Your task to perform on an android device: add a contact in the contacts app Image 0: 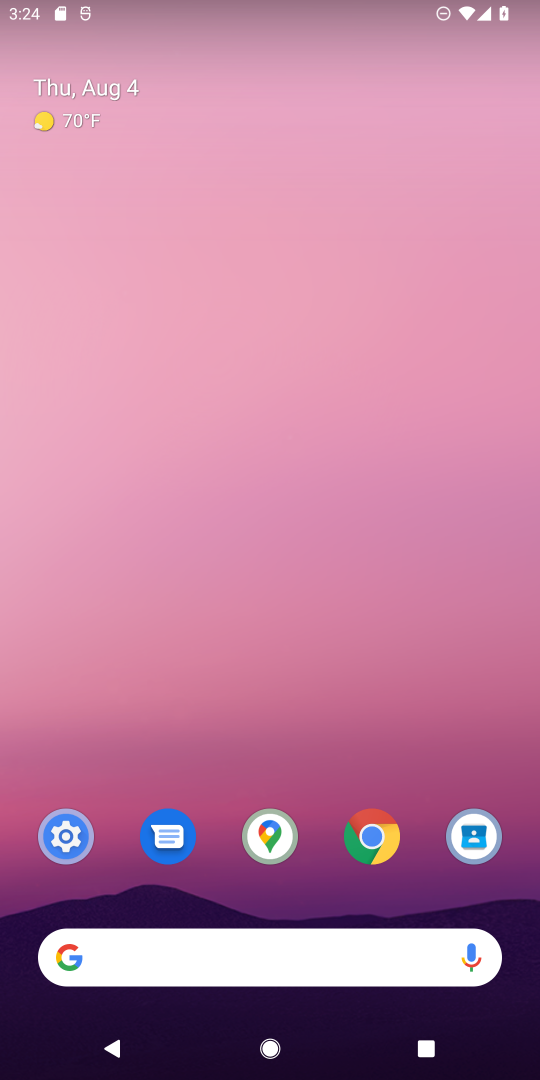
Step 0: drag from (145, 961) to (25, 255)
Your task to perform on an android device: add a contact in the contacts app Image 1: 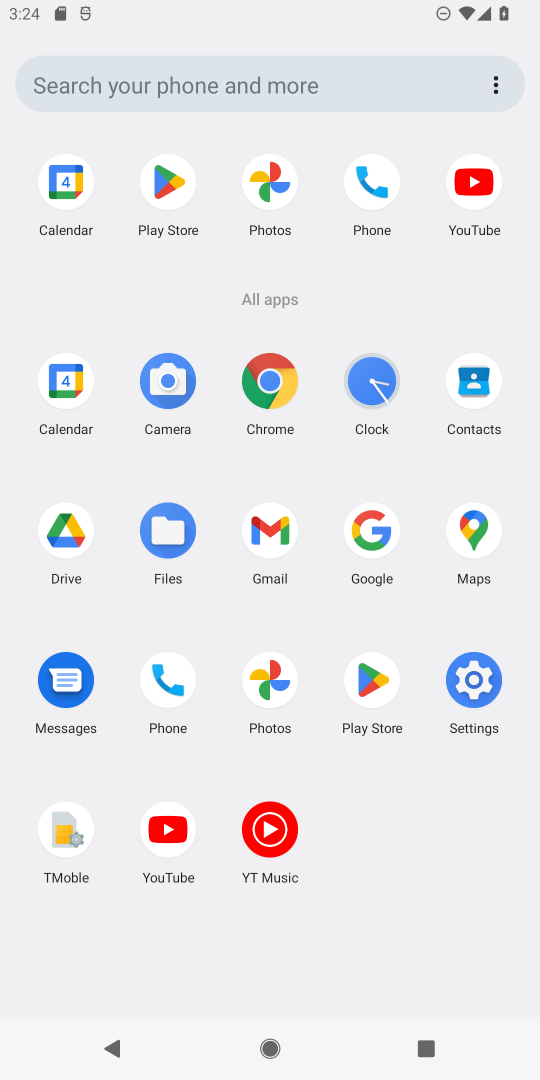
Step 1: click (467, 405)
Your task to perform on an android device: add a contact in the contacts app Image 2: 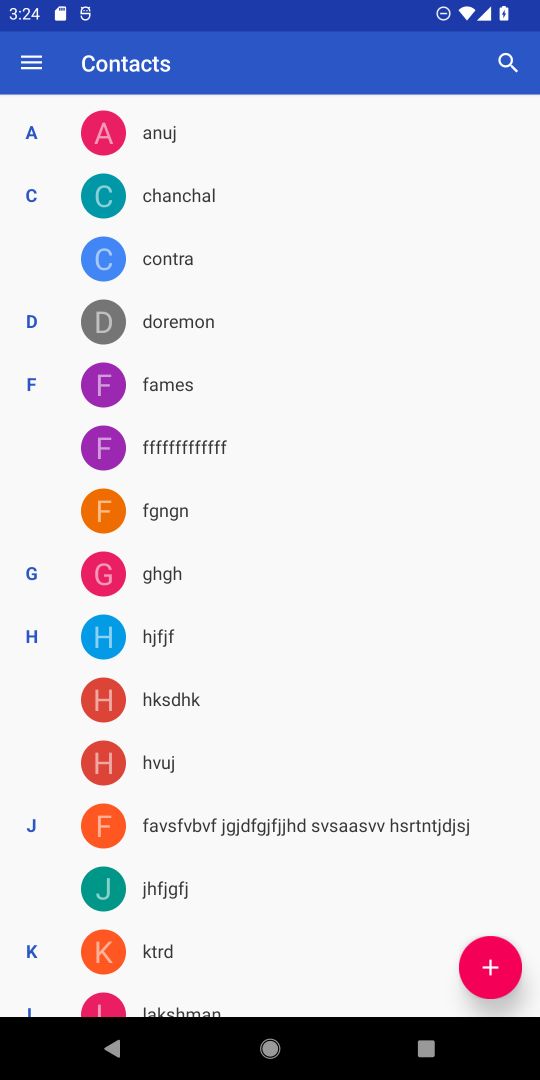
Step 2: click (508, 971)
Your task to perform on an android device: add a contact in the contacts app Image 3: 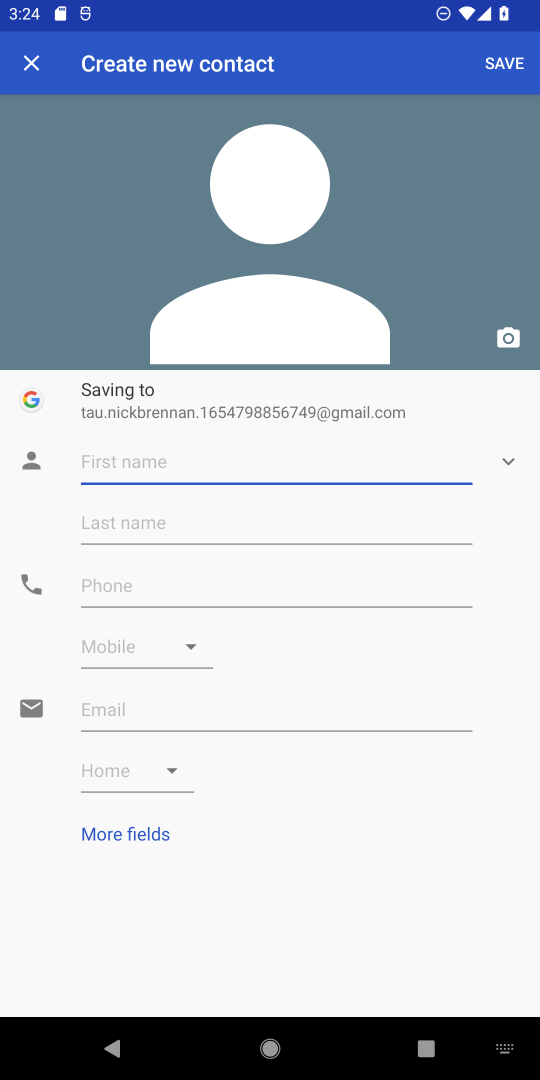
Step 3: type "vbccghc"
Your task to perform on an android device: add a contact in the contacts app Image 4: 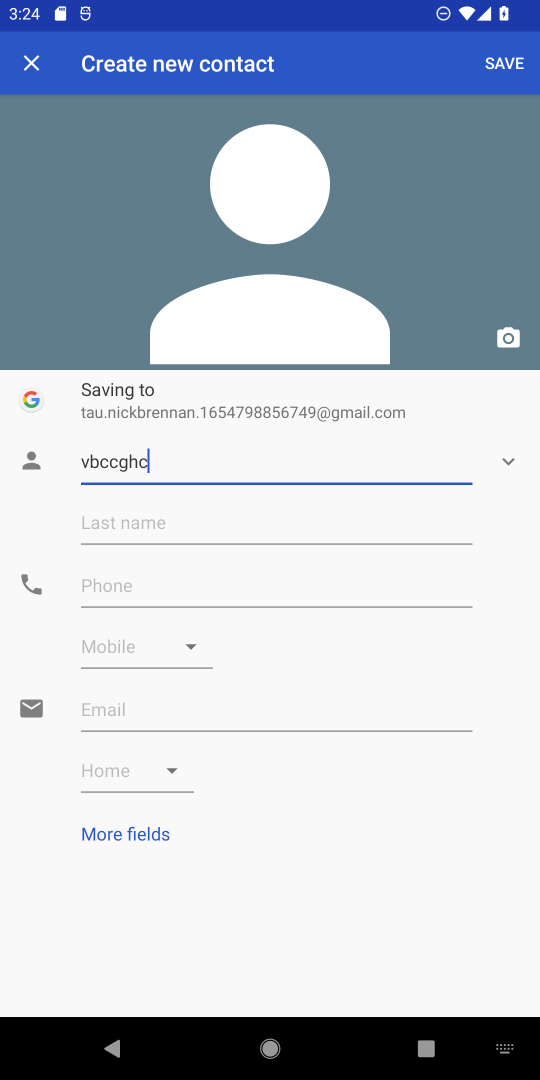
Step 4: click (200, 595)
Your task to perform on an android device: add a contact in the contacts app Image 5: 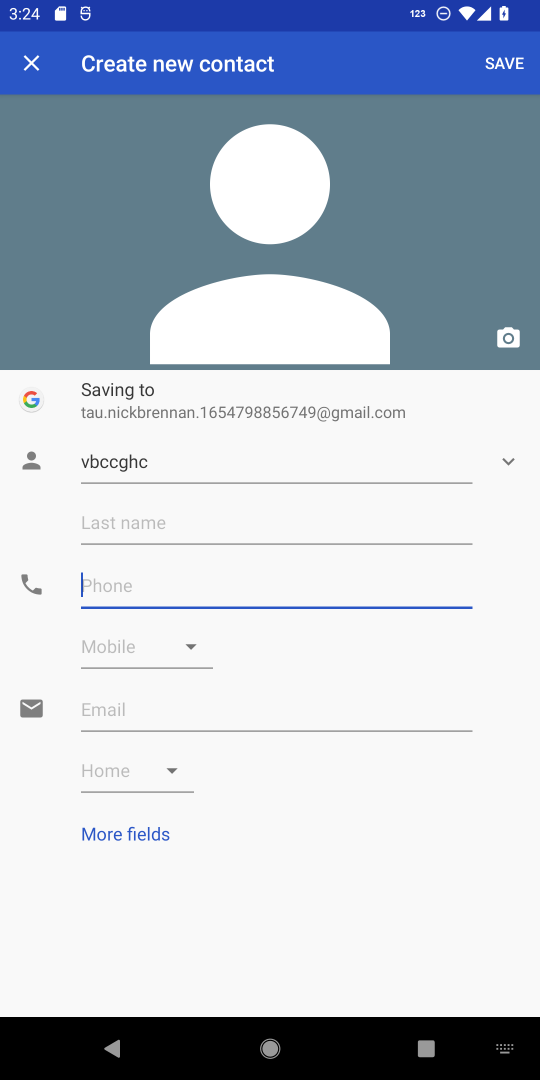
Step 5: type "899"
Your task to perform on an android device: add a contact in the contacts app Image 6: 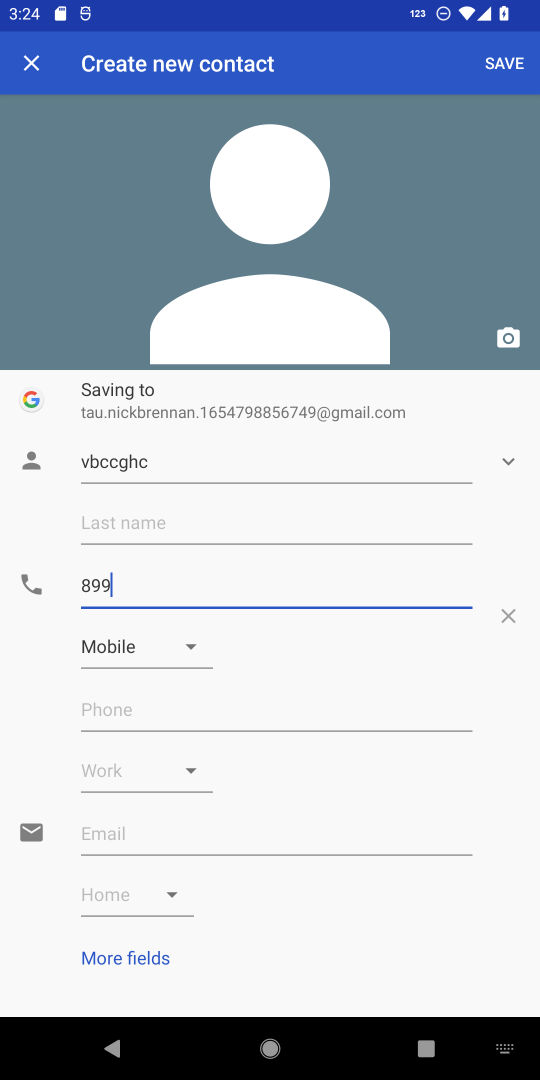
Step 6: click (496, 61)
Your task to perform on an android device: add a contact in the contacts app Image 7: 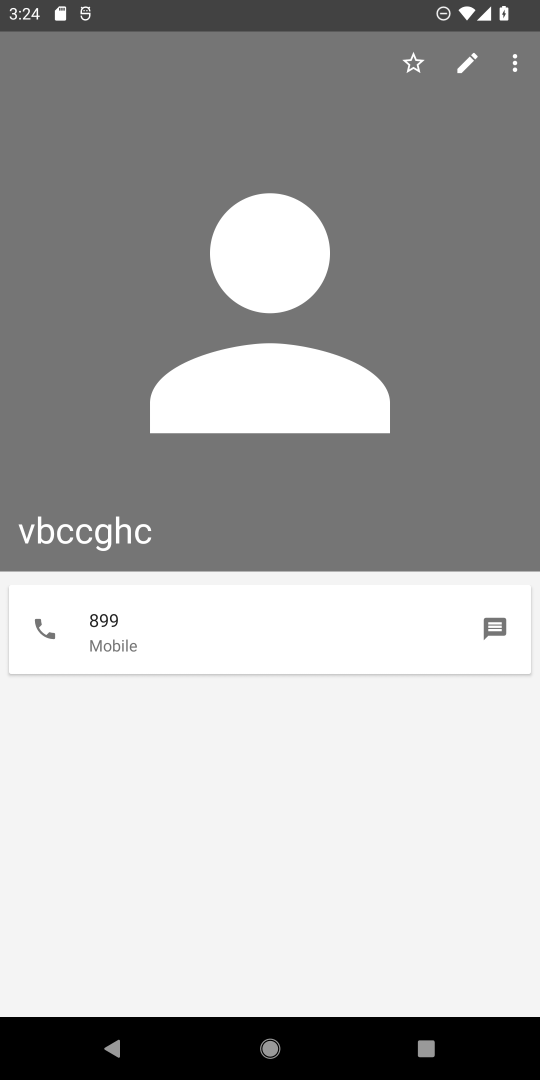
Step 7: task complete